Your task to perform on an android device: Is it going to rain tomorrow? Image 0: 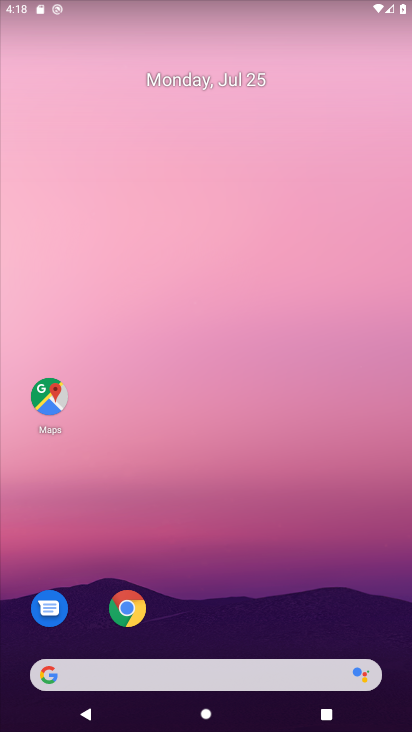
Step 0: click (180, 676)
Your task to perform on an android device: Is it going to rain tomorrow? Image 1: 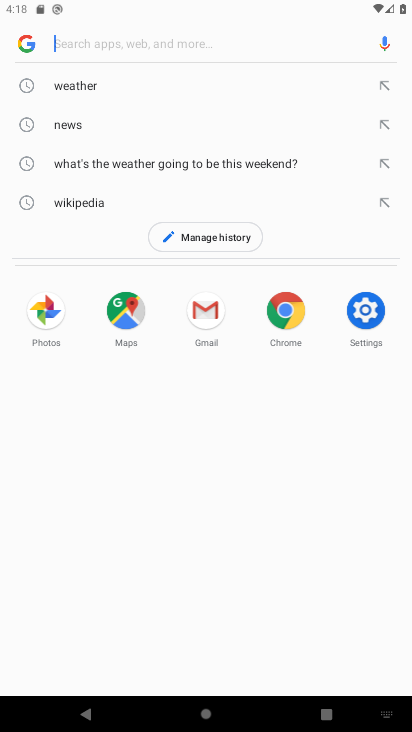
Step 1: click (89, 84)
Your task to perform on an android device: Is it going to rain tomorrow? Image 2: 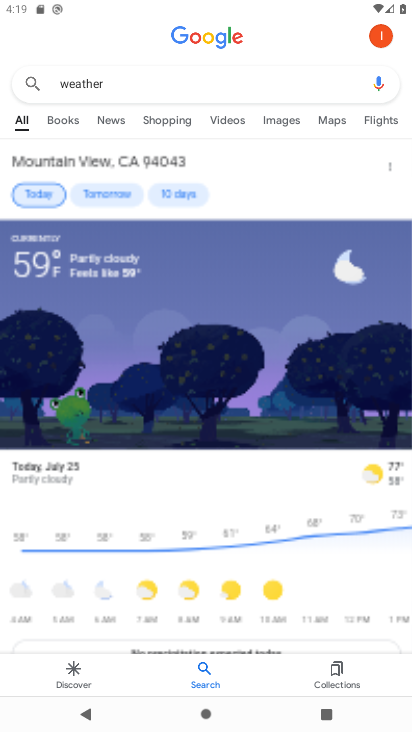
Step 2: click (108, 190)
Your task to perform on an android device: Is it going to rain tomorrow? Image 3: 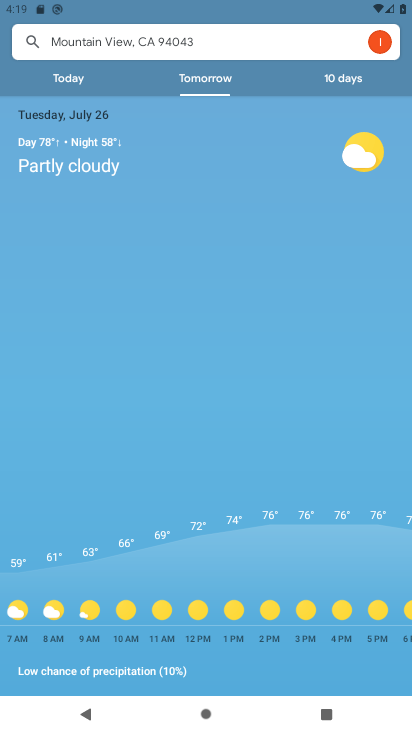
Step 3: task complete